Your task to perform on an android device: Go to privacy settings Image 0: 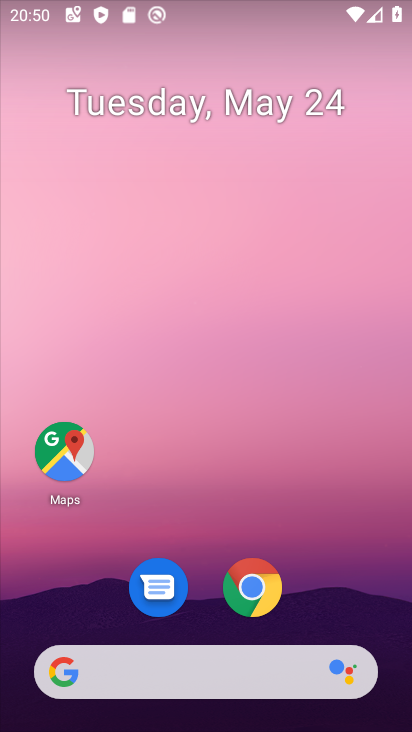
Step 0: drag from (324, 482) to (250, 63)
Your task to perform on an android device: Go to privacy settings Image 1: 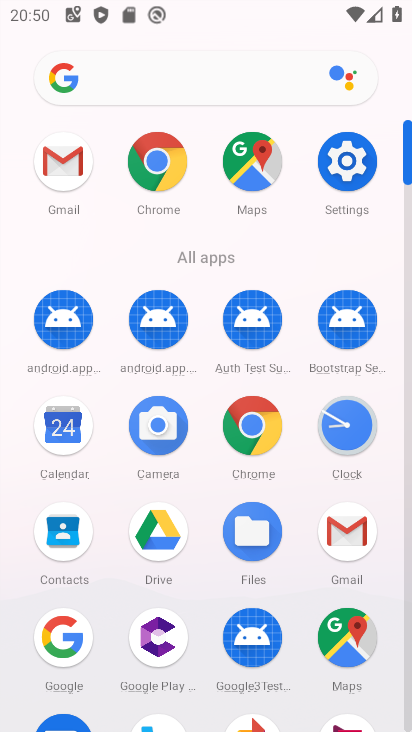
Step 1: drag from (13, 603) to (28, 250)
Your task to perform on an android device: Go to privacy settings Image 2: 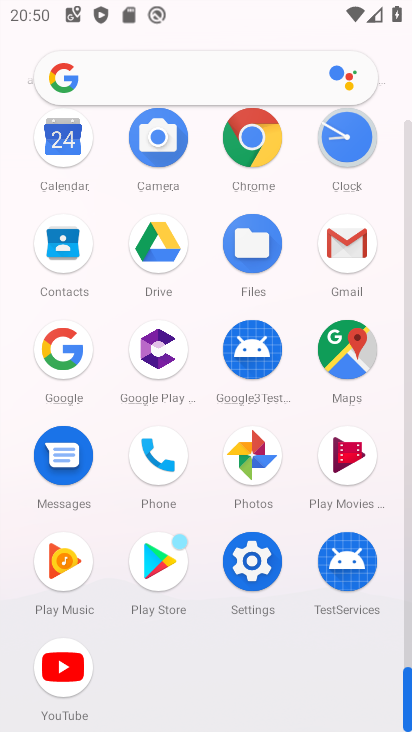
Step 2: click (251, 133)
Your task to perform on an android device: Go to privacy settings Image 3: 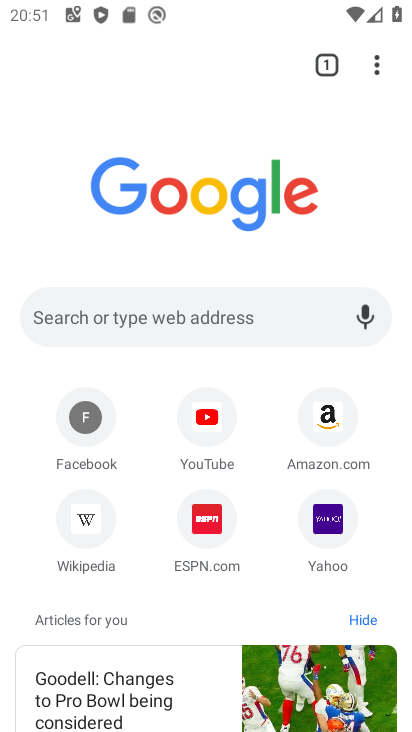
Step 3: drag from (377, 60) to (146, 536)
Your task to perform on an android device: Go to privacy settings Image 4: 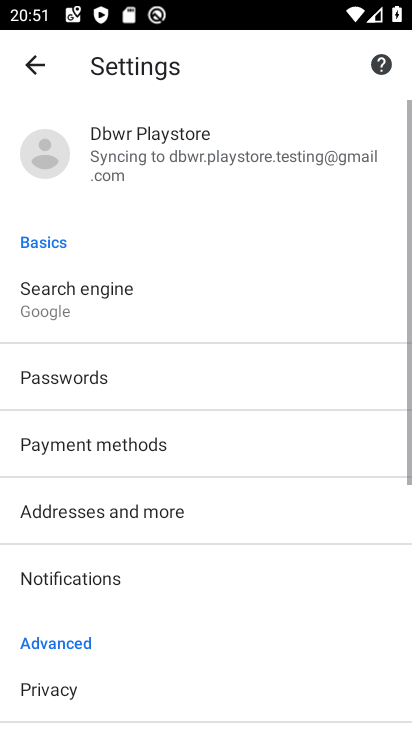
Step 4: drag from (163, 573) to (207, 216)
Your task to perform on an android device: Go to privacy settings Image 5: 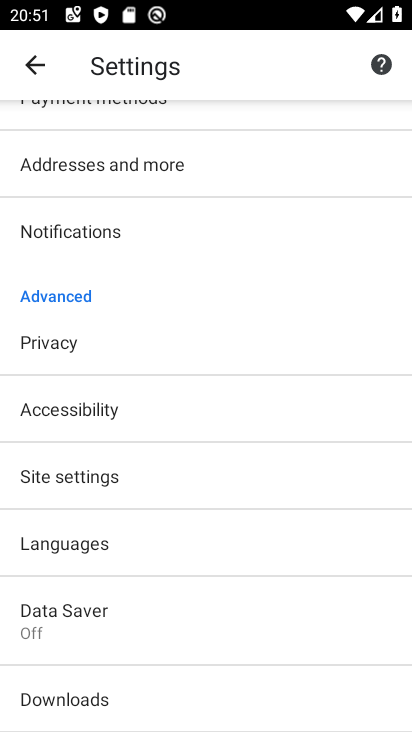
Step 5: click (109, 328)
Your task to perform on an android device: Go to privacy settings Image 6: 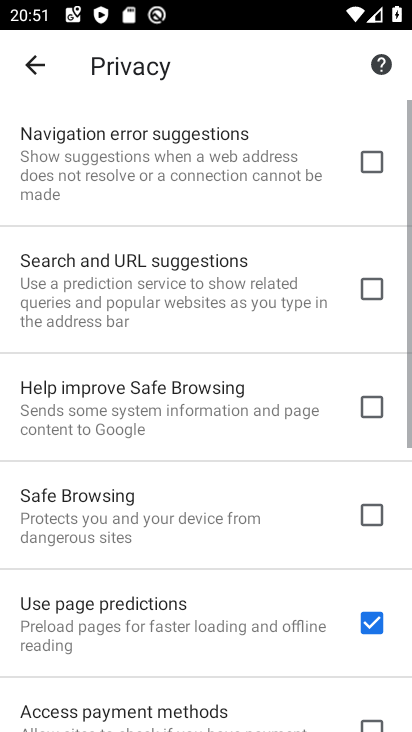
Step 6: task complete